Your task to perform on an android device: Open Google Chrome and open the bookmarks view Image 0: 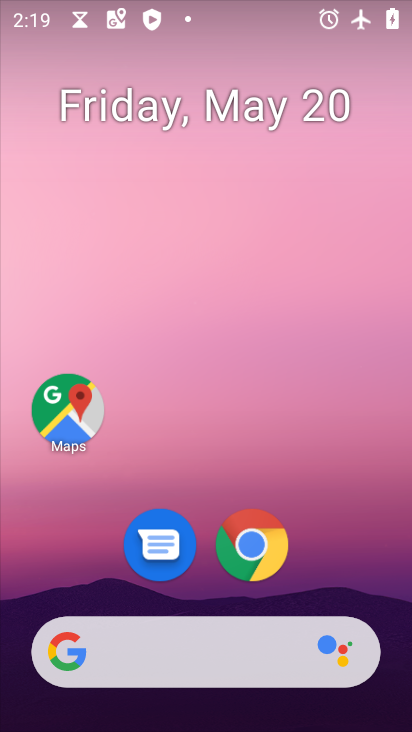
Step 0: click (241, 554)
Your task to perform on an android device: Open Google Chrome and open the bookmarks view Image 1: 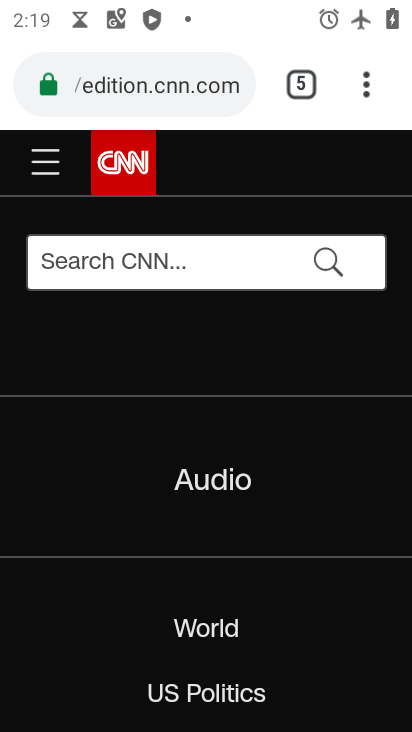
Step 1: click (371, 90)
Your task to perform on an android device: Open Google Chrome and open the bookmarks view Image 2: 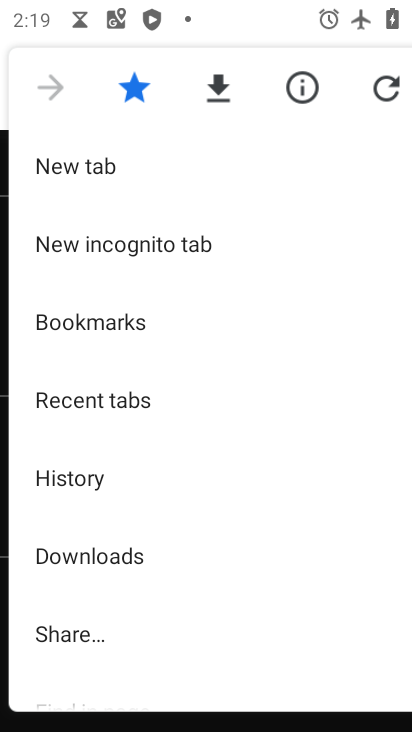
Step 2: click (109, 326)
Your task to perform on an android device: Open Google Chrome and open the bookmarks view Image 3: 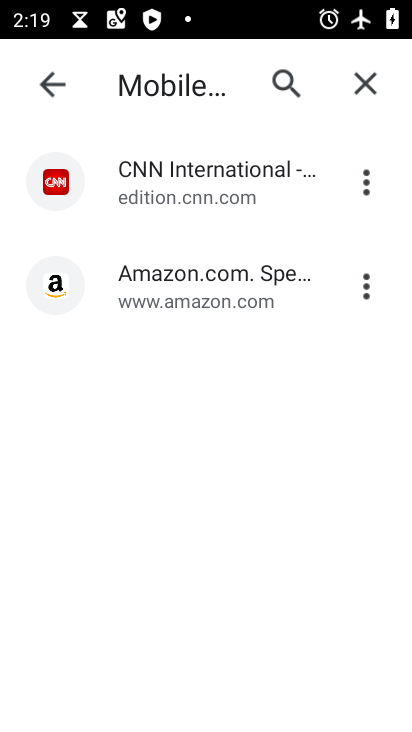
Step 3: task complete